Your task to perform on an android device: turn off javascript in the chrome app Image 0: 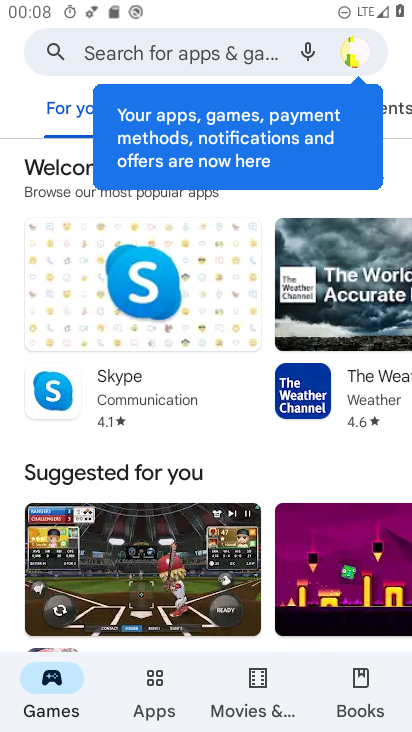
Step 0: press home button
Your task to perform on an android device: turn off javascript in the chrome app Image 1: 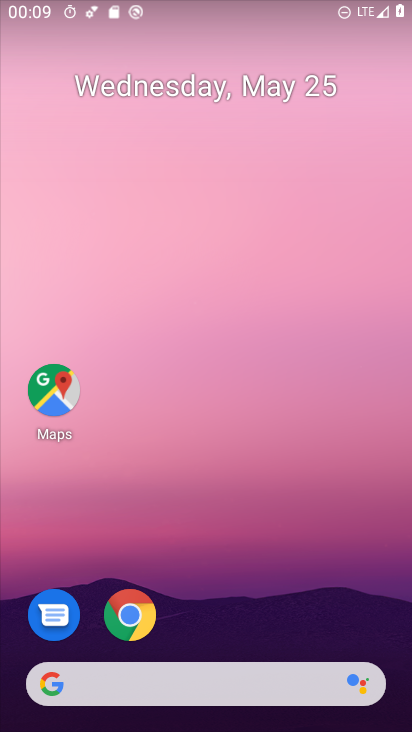
Step 1: drag from (299, 721) to (243, 66)
Your task to perform on an android device: turn off javascript in the chrome app Image 2: 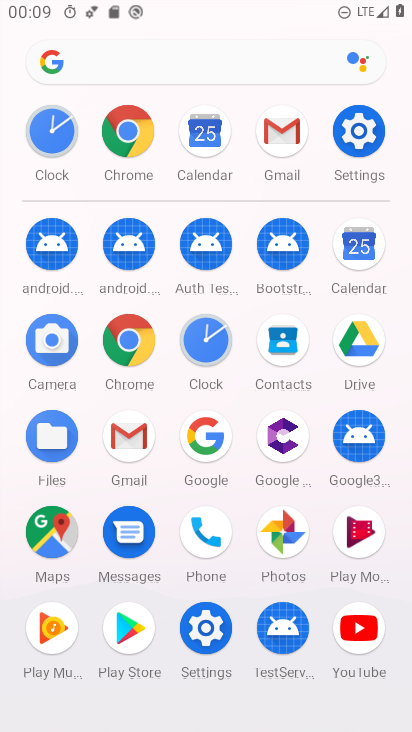
Step 2: click (115, 144)
Your task to perform on an android device: turn off javascript in the chrome app Image 3: 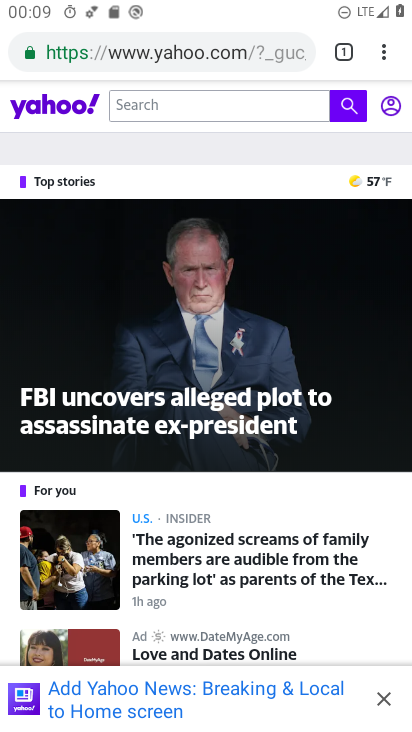
Step 3: click (379, 57)
Your task to perform on an android device: turn off javascript in the chrome app Image 4: 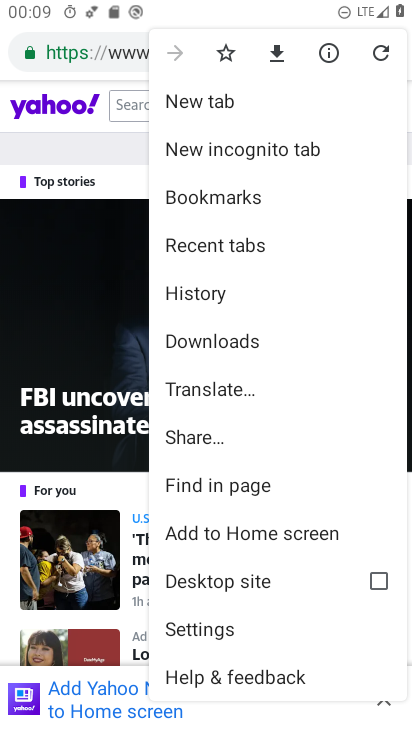
Step 4: click (215, 632)
Your task to perform on an android device: turn off javascript in the chrome app Image 5: 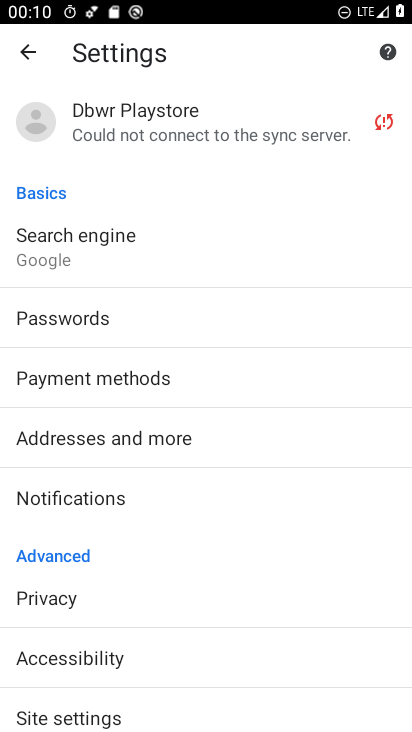
Step 5: click (92, 721)
Your task to perform on an android device: turn off javascript in the chrome app Image 6: 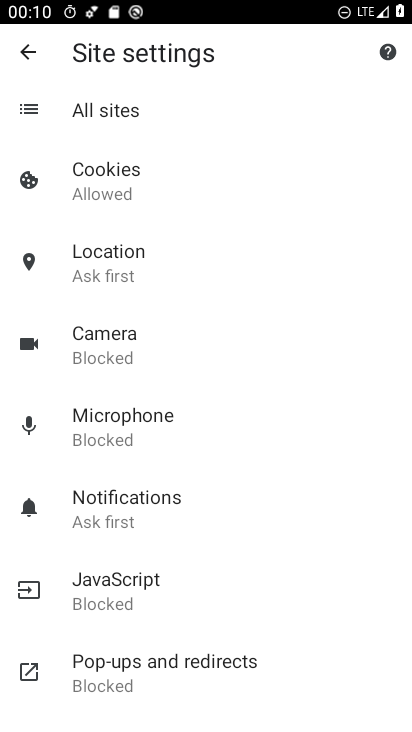
Step 6: click (172, 587)
Your task to perform on an android device: turn off javascript in the chrome app Image 7: 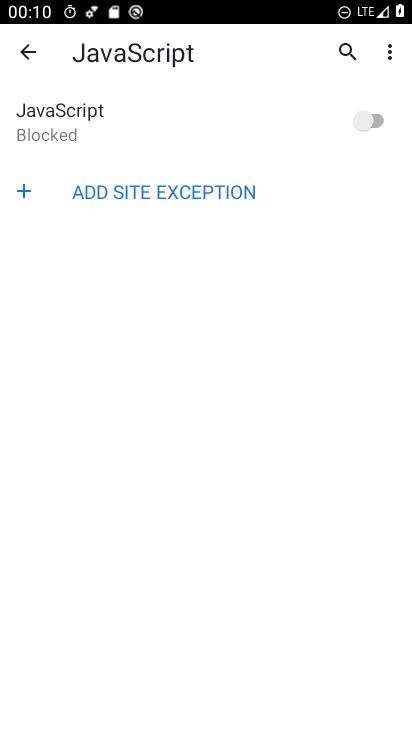
Step 7: click (363, 125)
Your task to perform on an android device: turn off javascript in the chrome app Image 8: 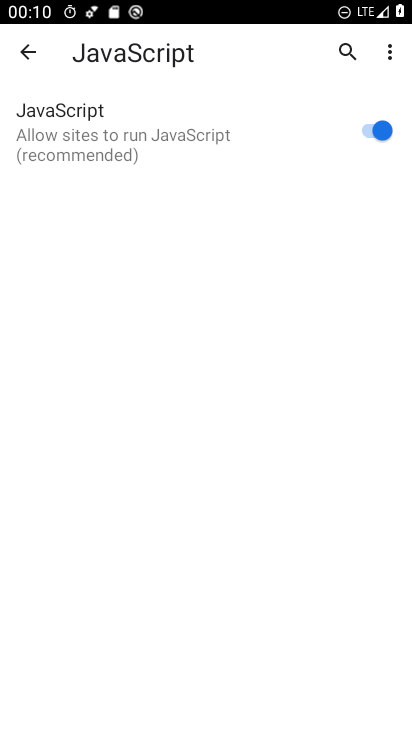
Step 8: click (363, 125)
Your task to perform on an android device: turn off javascript in the chrome app Image 9: 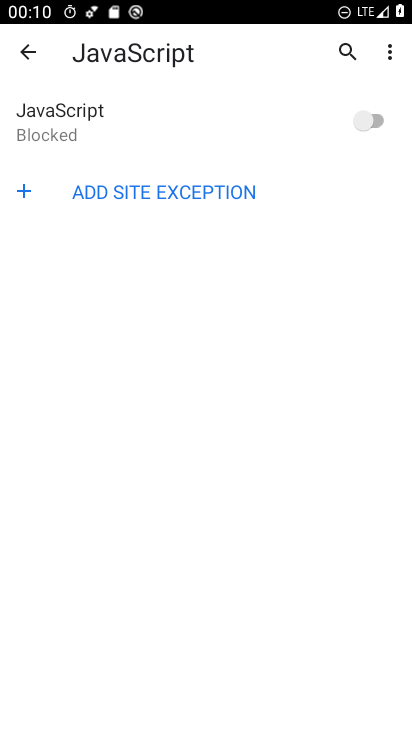
Step 9: task complete